Your task to perform on an android device: turn on sleep mode Image 0: 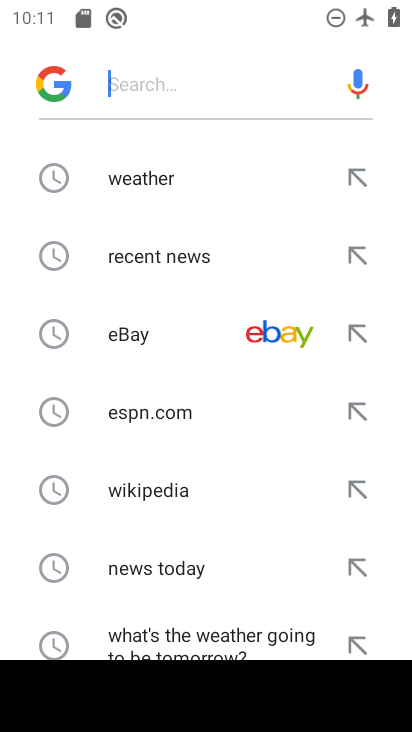
Step 0: press home button
Your task to perform on an android device: turn on sleep mode Image 1: 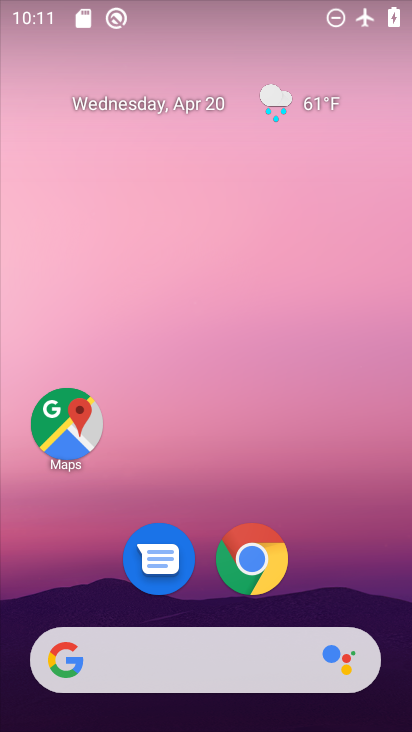
Step 1: drag from (349, 603) to (291, 280)
Your task to perform on an android device: turn on sleep mode Image 2: 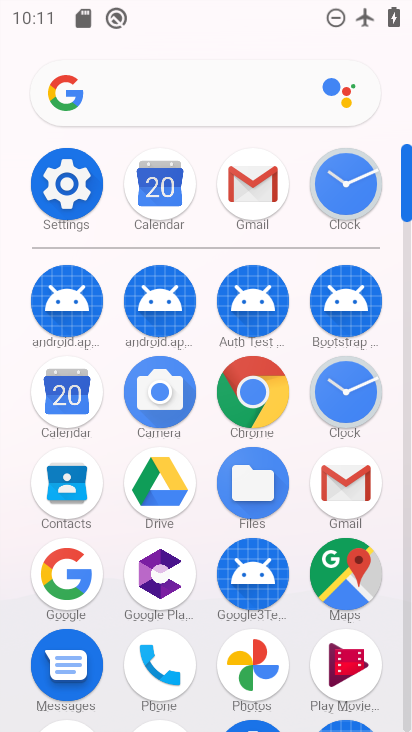
Step 2: click (405, 716)
Your task to perform on an android device: turn on sleep mode Image 3: 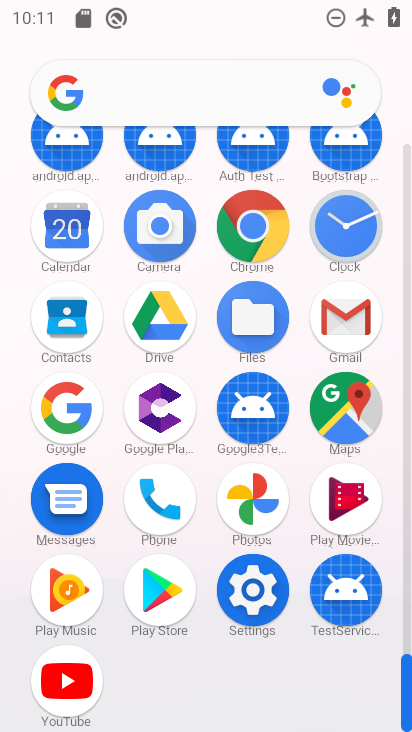
Step 3: click (251, 593)
Your task to perform on an android device: turn on sleep mode Image 4: 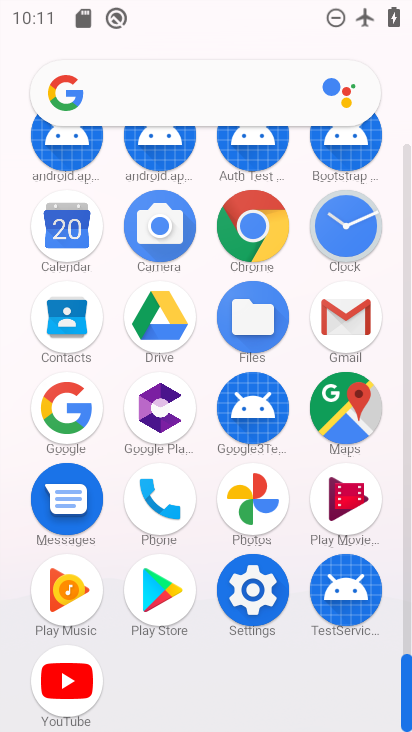
Step 4: click (251, 593)
Your task to perform on an android device: turn on sleep mode Image 5: 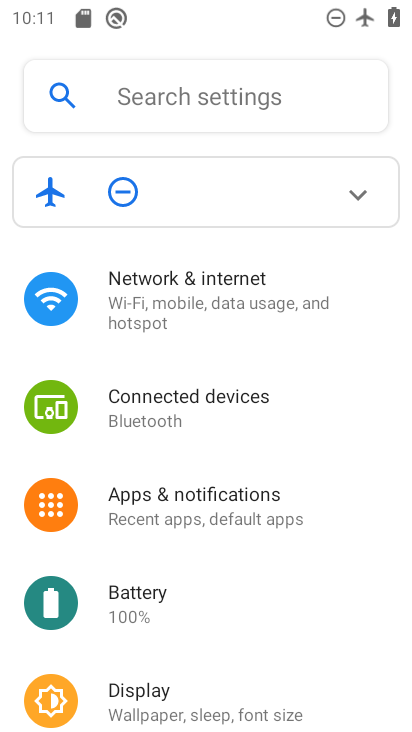
Step 5: drag from (223, 679) to (275, 414)
Your task to perform on an android device: turn on sleep mode Image 6: 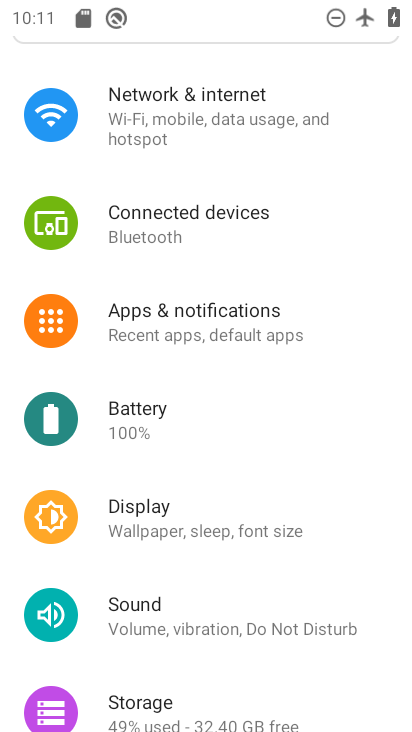
Step 6: click (166, 508)
Your task to perform on an android device: turn on sleep mode Image 7: 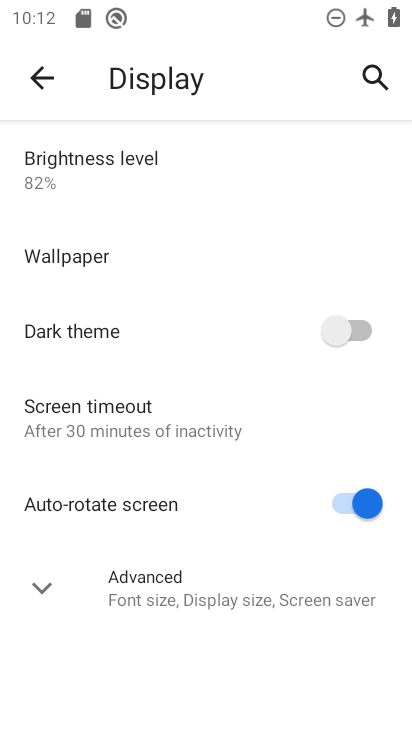
Step 7: click (33, 591)
Your task to perform on an android device: turn on sleep mode Image 8: 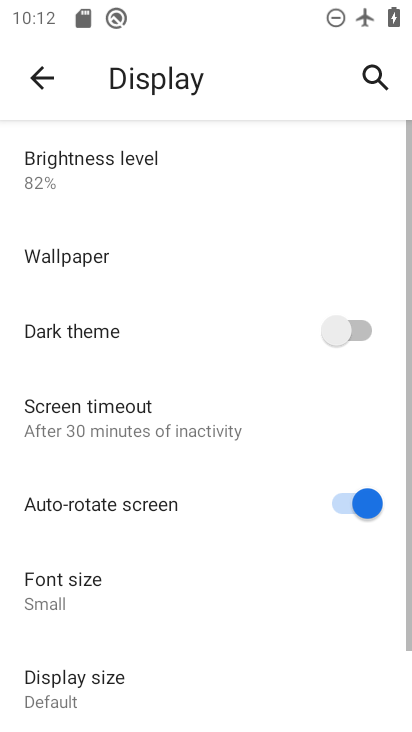
Step 8: task complete